Your task to perform on an android device: What's the weather going to be this weekend? Image 0: 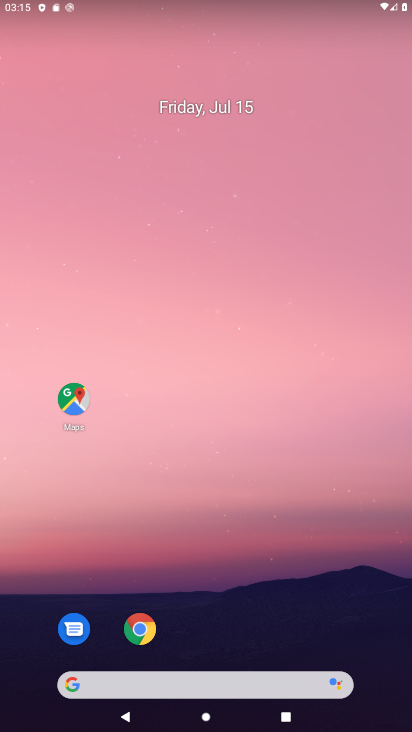
Step 0: drag from (374, 713) to (269, 245)
Your task to perform on an android device: What's the weather going to be this weekend? Image 1: 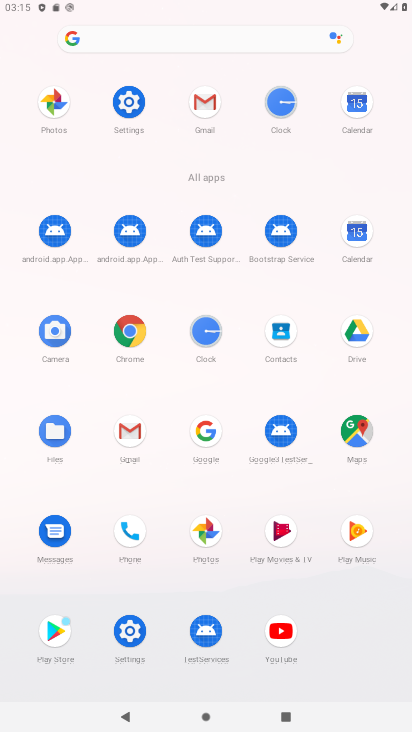
Step 1: click (200, 442)
Your task to perform on an android device: What's the weather going to be this weekend? Image 2: 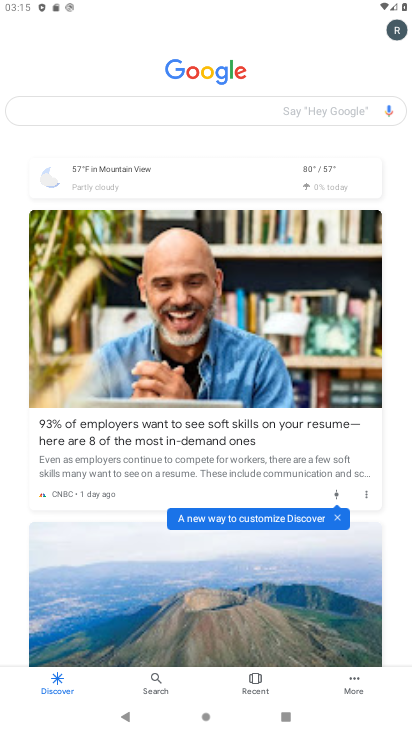
Step 2: click (307, 168)
Your task to perform on an android device: What's the weather going to be this weekend? Image 3: 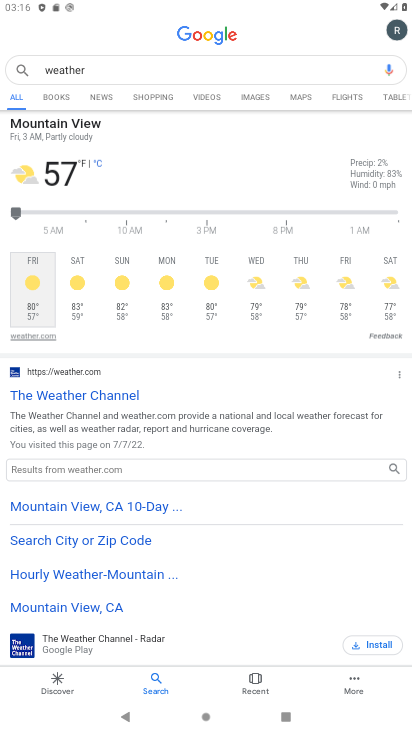
Step 3: task complete